Your task to perform on an android device: Open the calendar and show me this week's events Image 0: 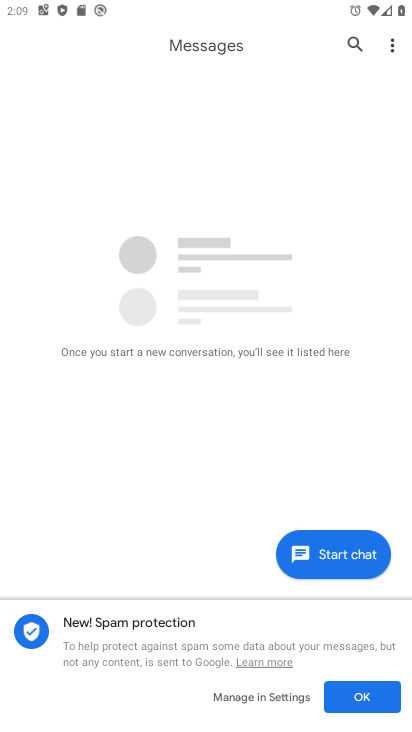
Step 0: press home button
Your task to perform on an android device: Open the calendar and show me this week's events Image 1: 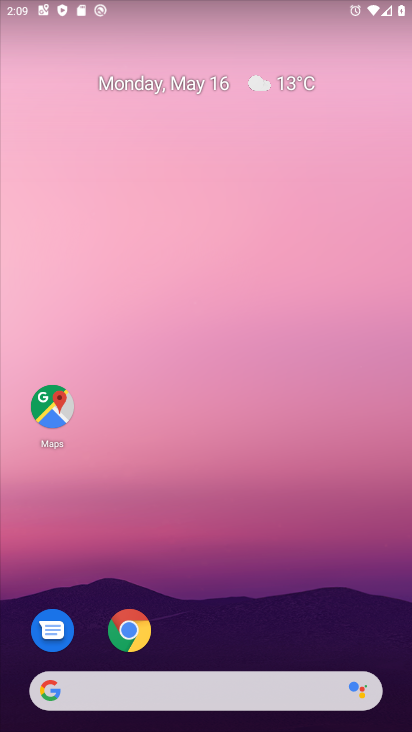
Step 1: click (110, 3)
Your task to perform on an android device: Open the calendar and show me this week's events Image 2: 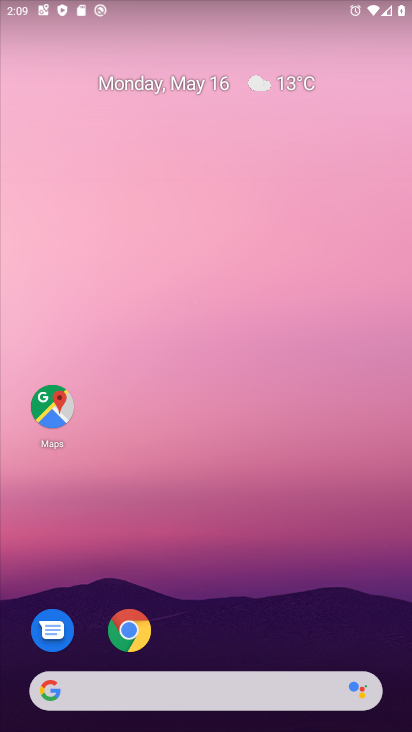
Step 2: drag from (281, 489) to (273, 32)
Your task to perform on an android device: Open the calendar and show me this week's events Image 3: 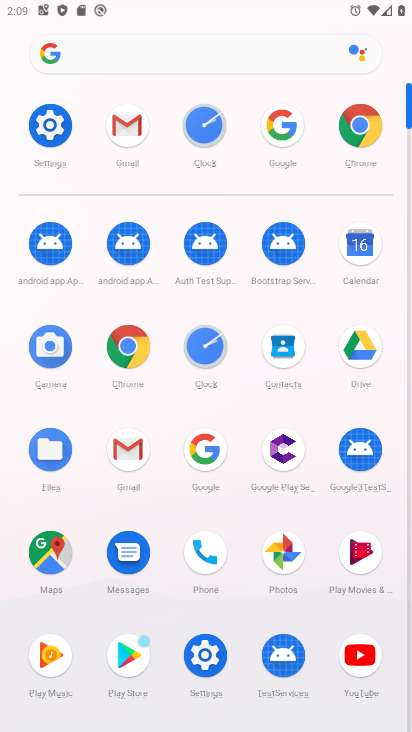
Step 3: click (350, 248)
Your task to perform on an android device: Open the calendar and show me this week's events Image 4: 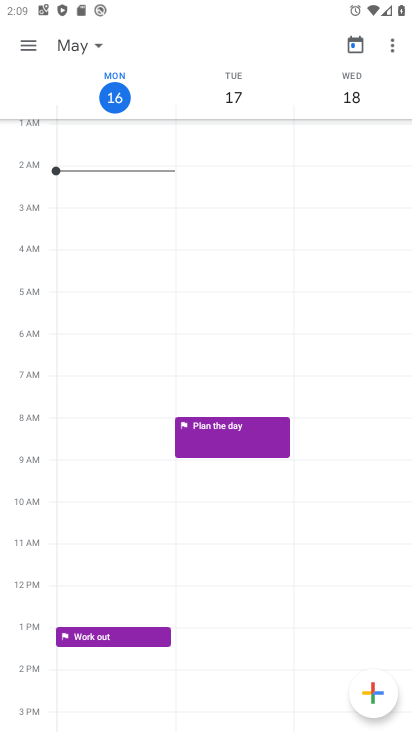
Step 4: click (35, 66)
Your task to perform on an android device: Open the calendar and show me this week's events Image 5: 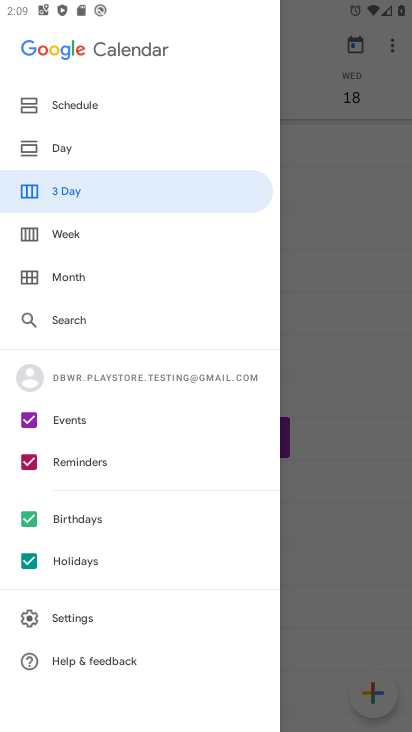
Step 5: click (37, 44)
Your task to perform on an android device: Open the calendar and show me this week's events Image 6: 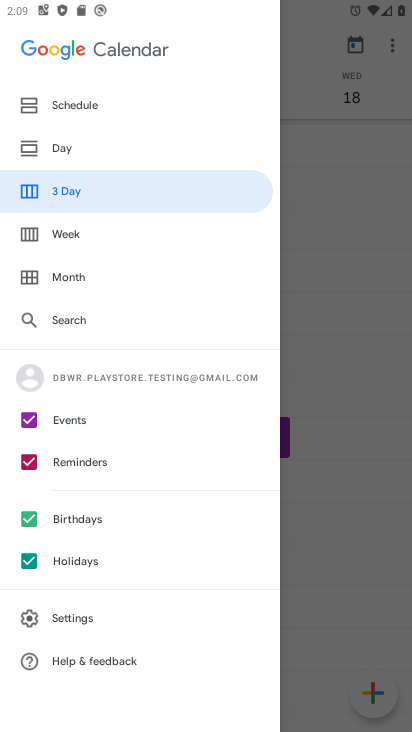
Step 6: click (74, 233)
Your task to perform on an android device: Open the calendar and show me this week's events Image 7: 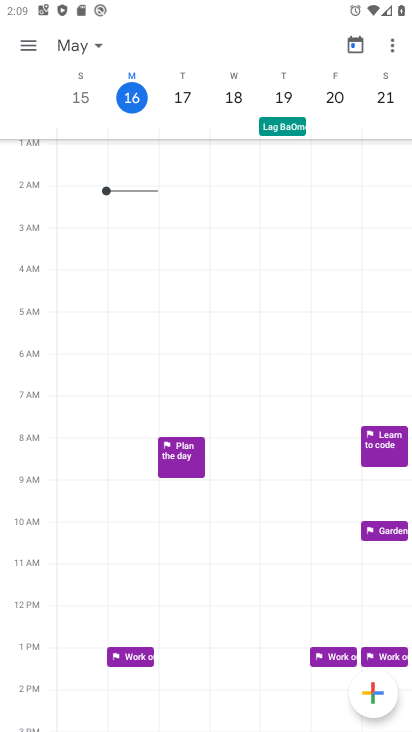
Step 7: task complete